Your task to perform on an android device: Open Chrome and go to settings Image 0: 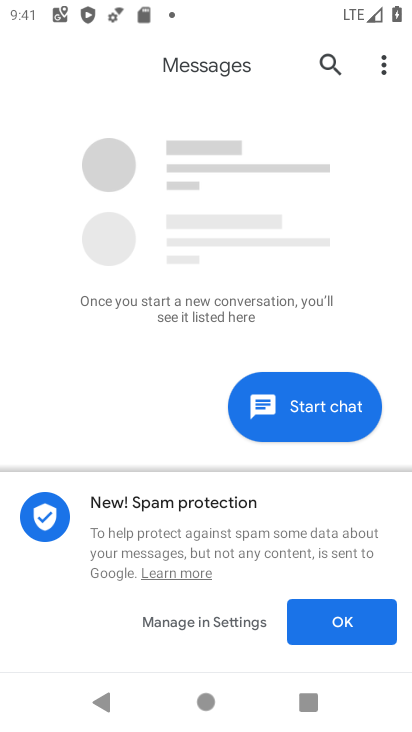
Step 0: press home button
Your task to perform on an android device: Open Chrome and go to settings Image 1: 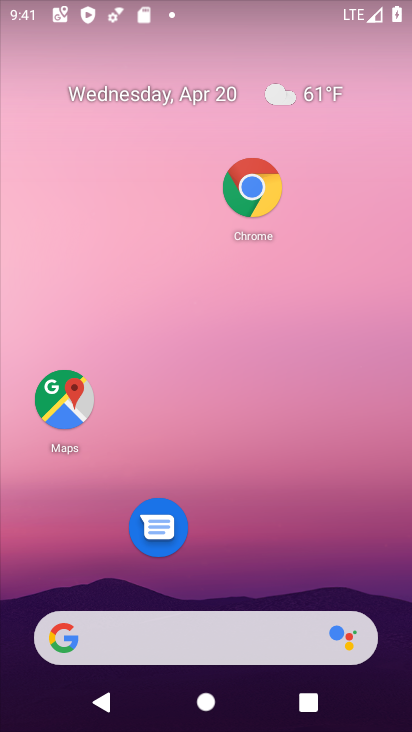
Step 1: click (250, 189)
Your task to perform on an android device: Open Chrome and go to settings Image 2: 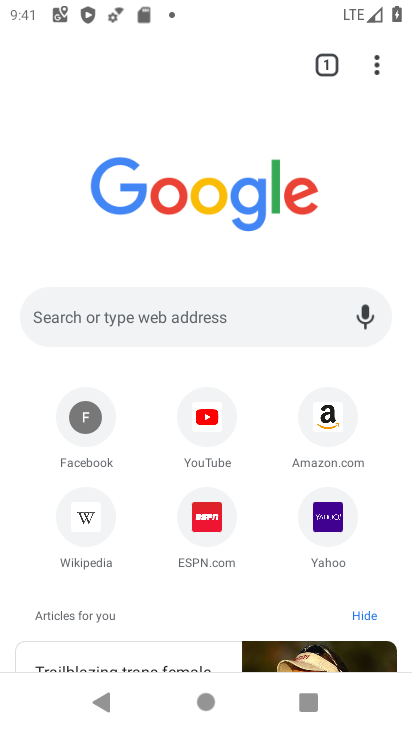
Step 2: click (374, 65)
Your task to perform on an android device: Open Chrome and go to settings Image 3: 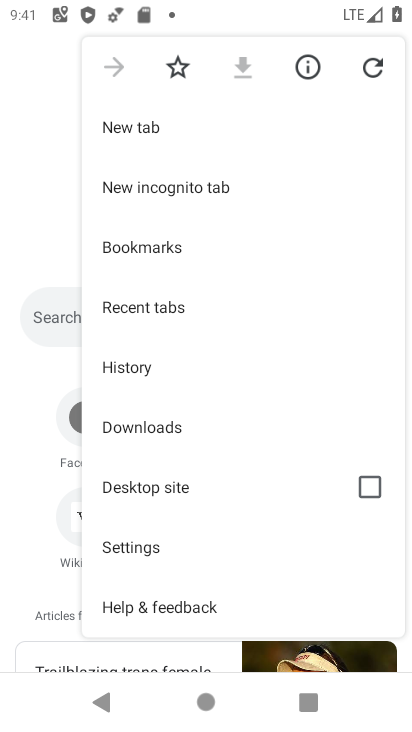
Step 3: click (135, 549)
Your task to perform on an android device: Open Chrome and go to settings Image 4: 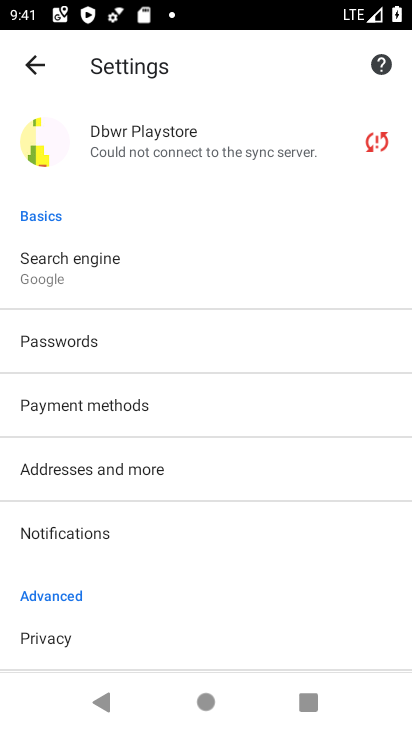
Step 4: task complete